Your task to perform on an android device: Search for a tv stand on Ikea Image 0: 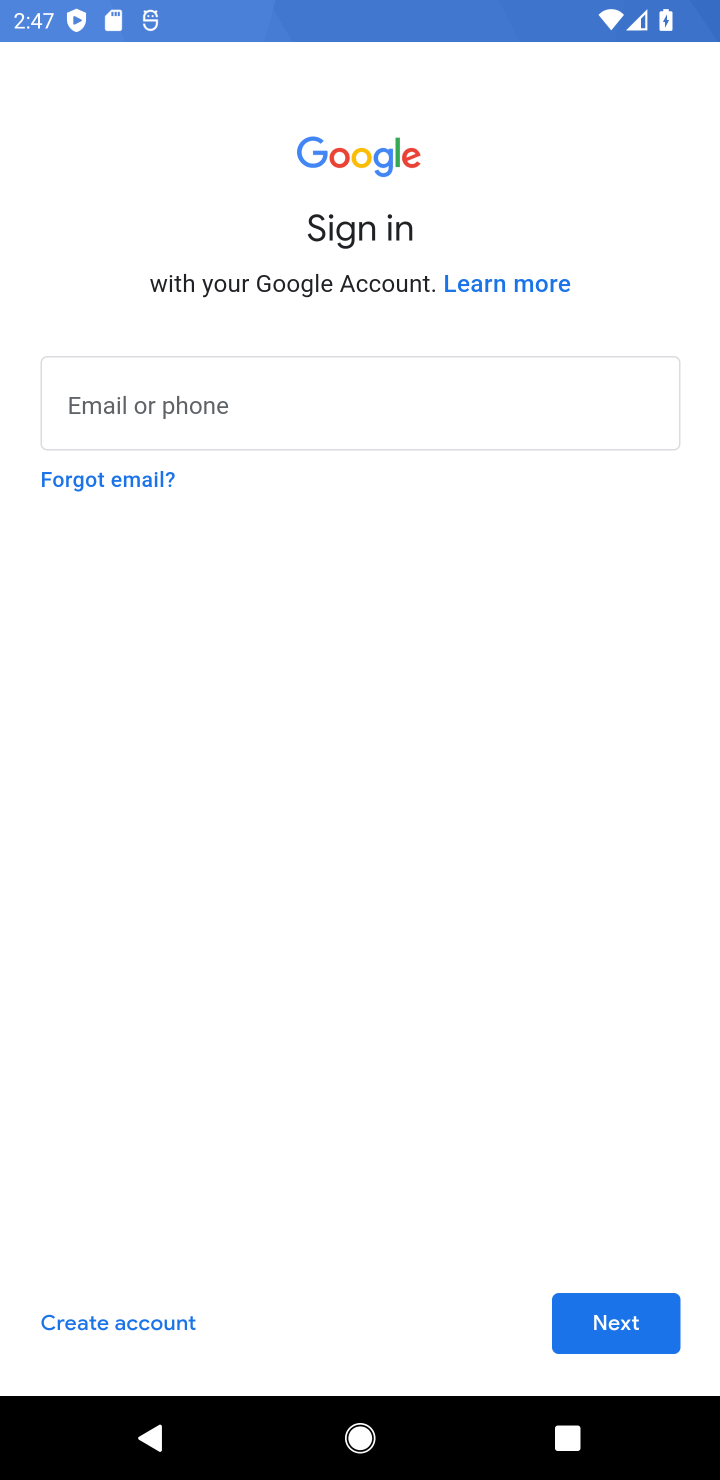
Step 0: press home button
Your task to perform on an android device: Search for a tv stand on Ikea Image 1: 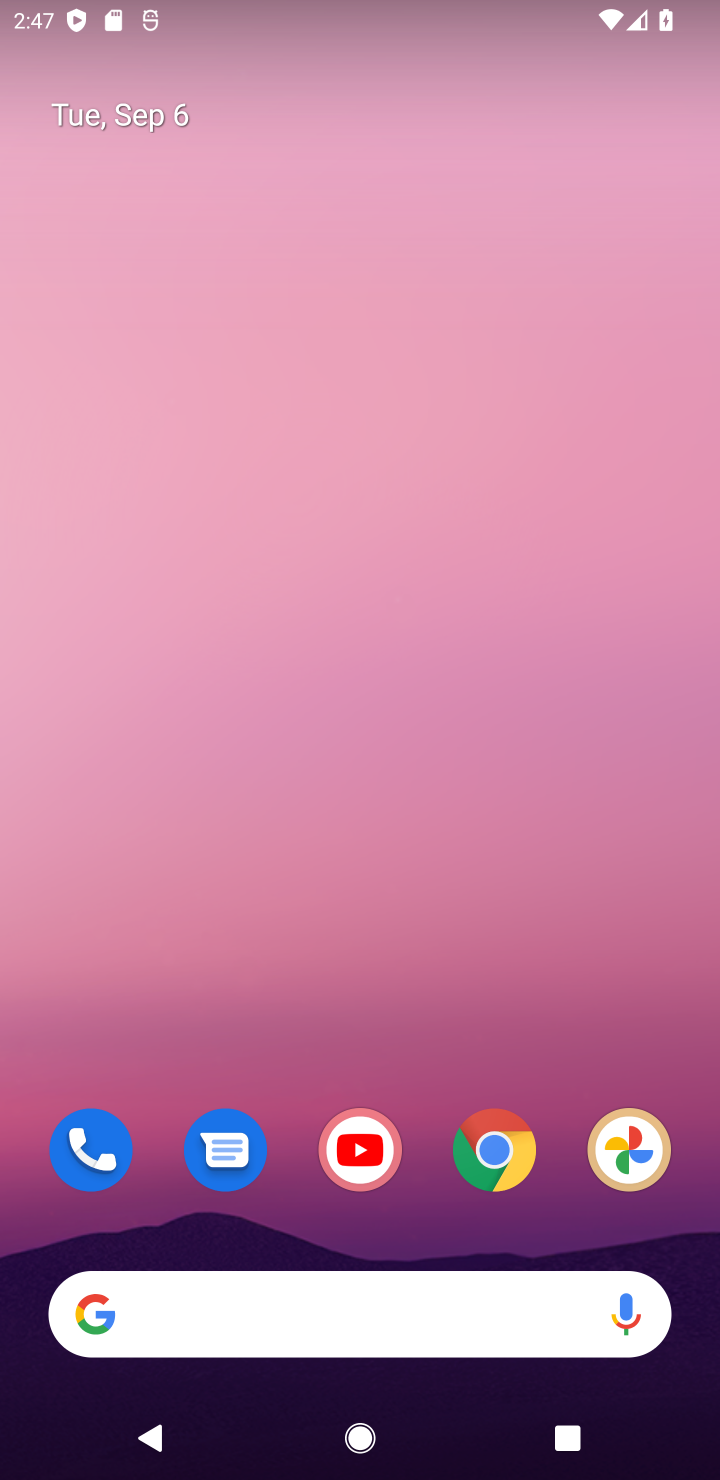
Step 1: click (499, 1158)
Your task to perform on an android device: Search for a tv stand on Ikea Image 2: 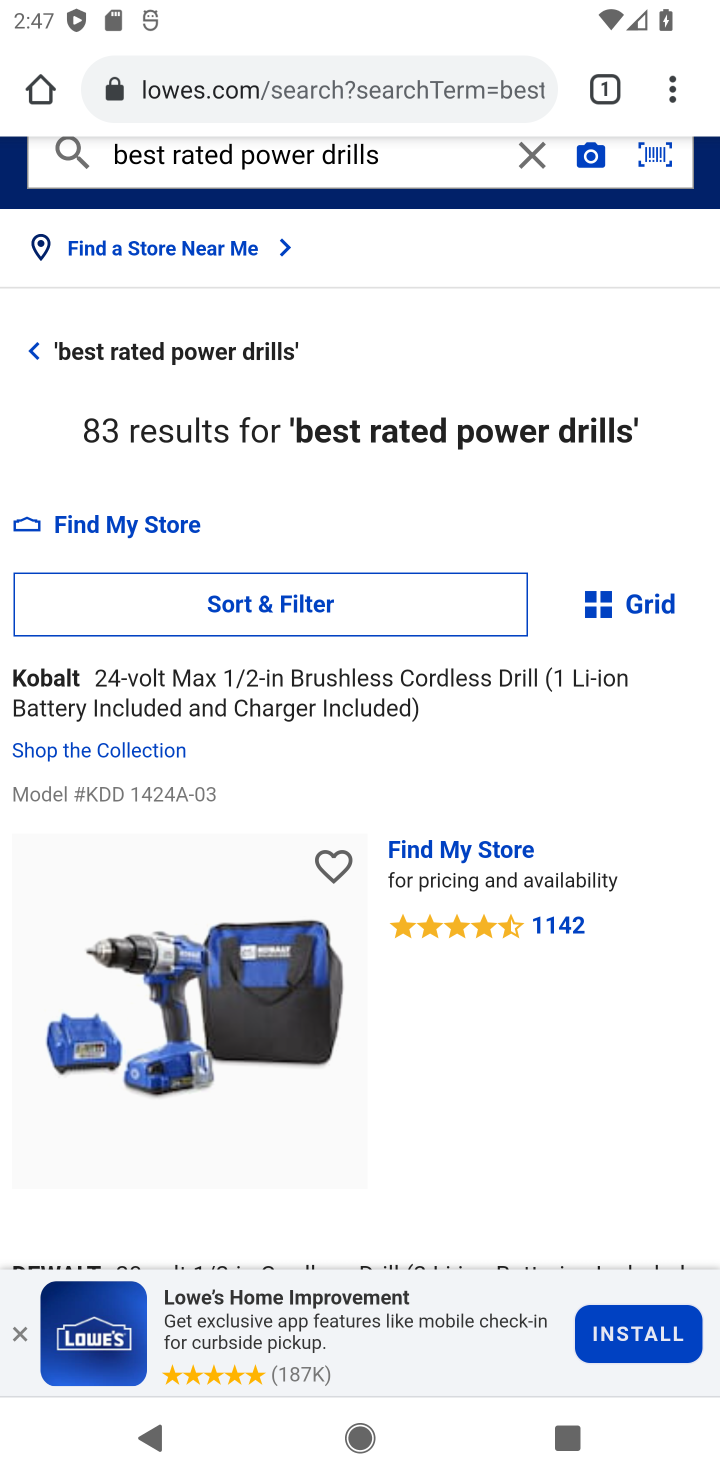
Step 2: click (349, 75)
Your task to perform on an android device: Search for a tv stand on Ikea Image 3: 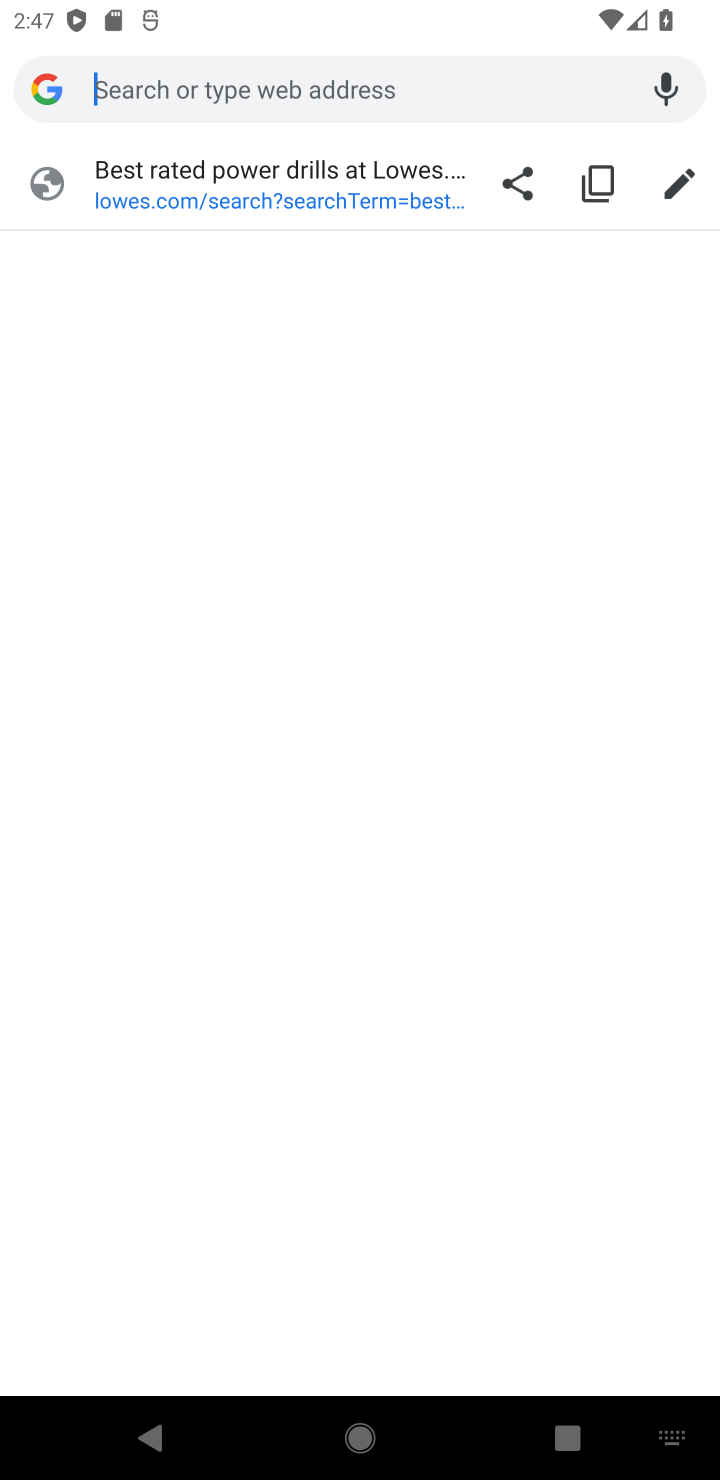
Step 3: type "ikea"
Your task to perform on an android device: Search for a tv stand on Ikea Image 4: 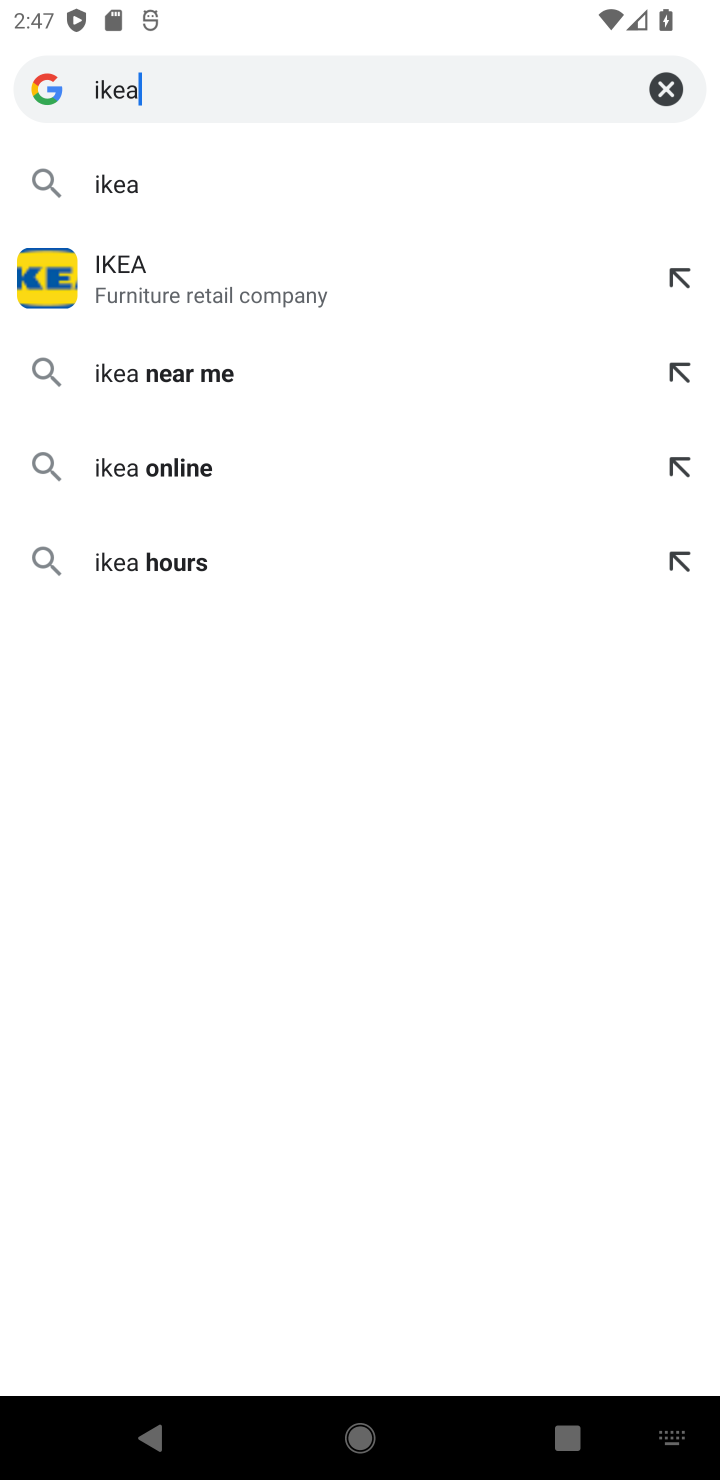
Step 4: click (100, 204)
Your task to perform on an android device: Search for a tv stand on Ikea Image 5: 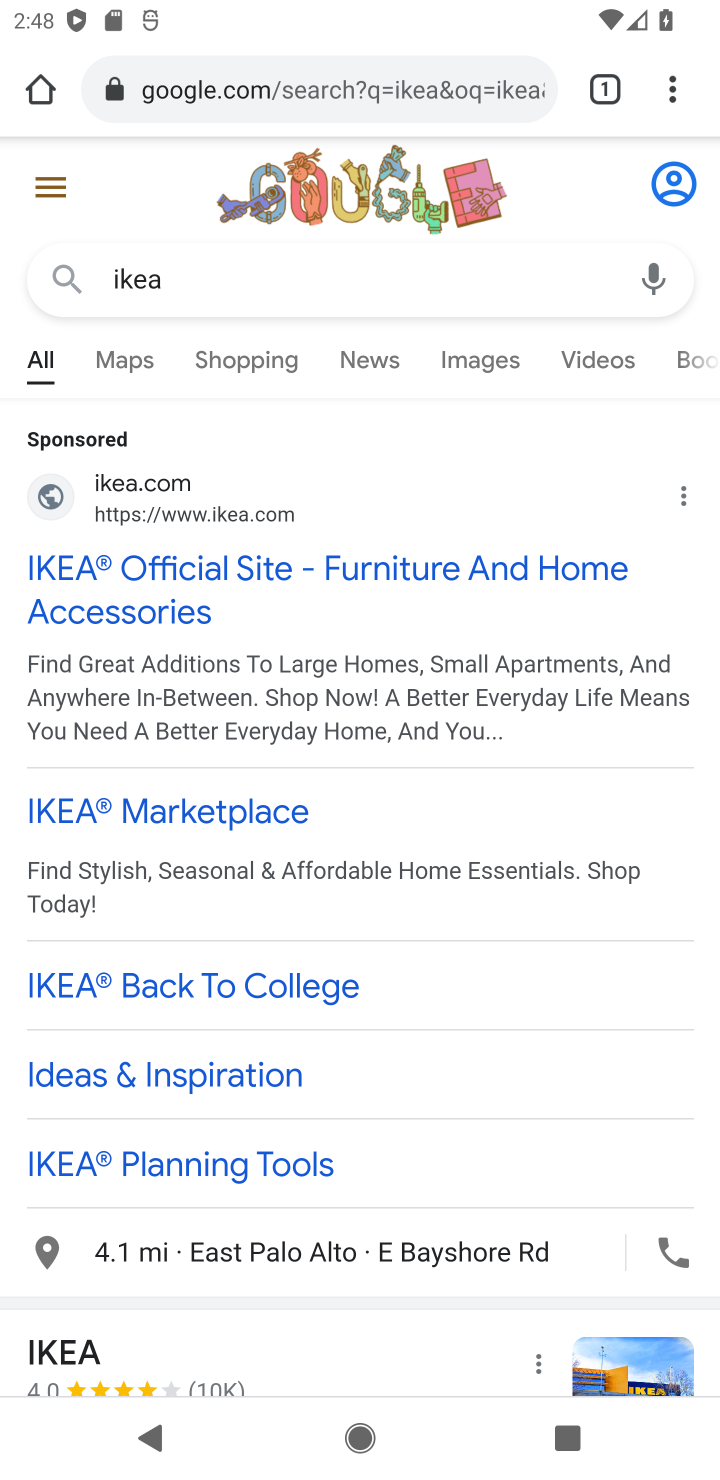
Step 5: click (121, 567)
Your task to perform on an android device: Search for a tv stand on Ikea Image 6: 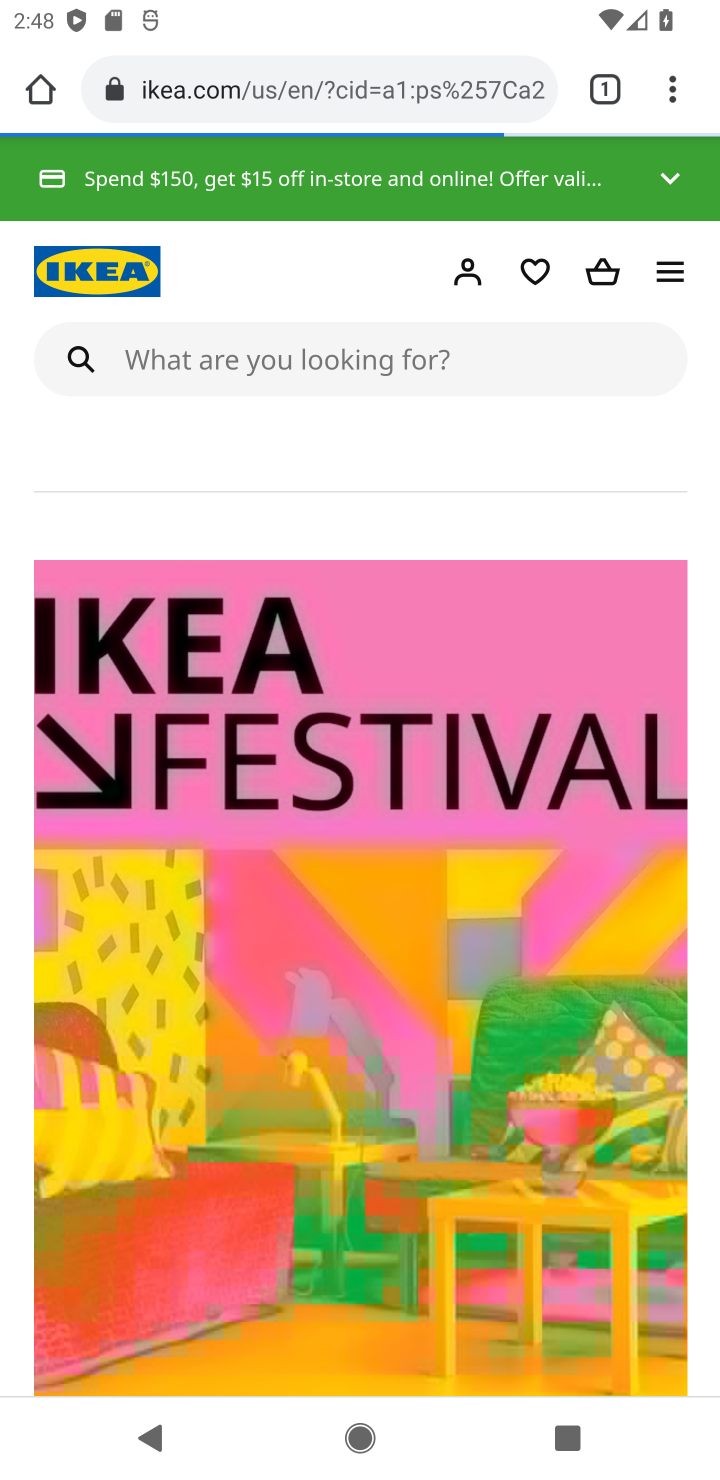
Step 6: click (157, 360)
Your task to perform on an android device: Search for a tv stand on Ikea Image 7: 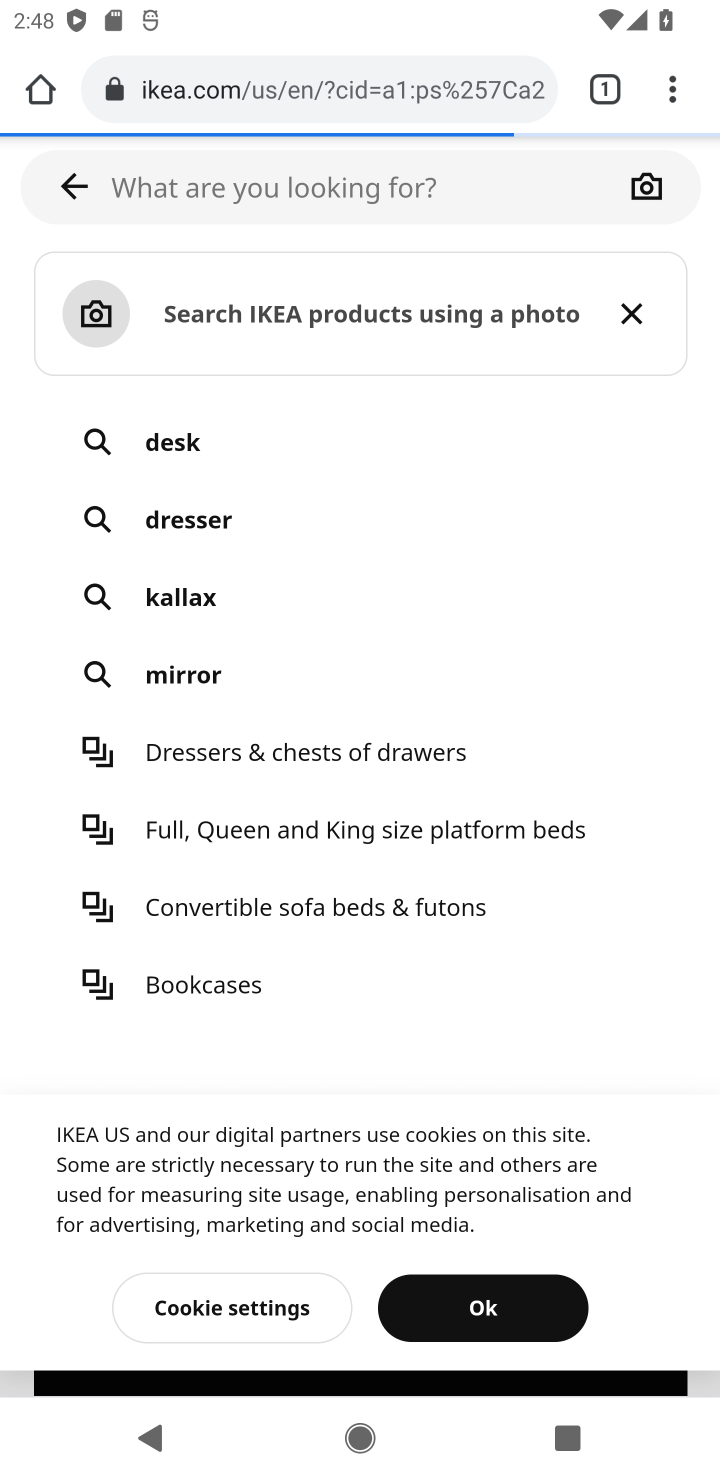
Step 7: type " tv stand"
Your task to perform on an android device: Search for a tv stand on Ikea Image 8: 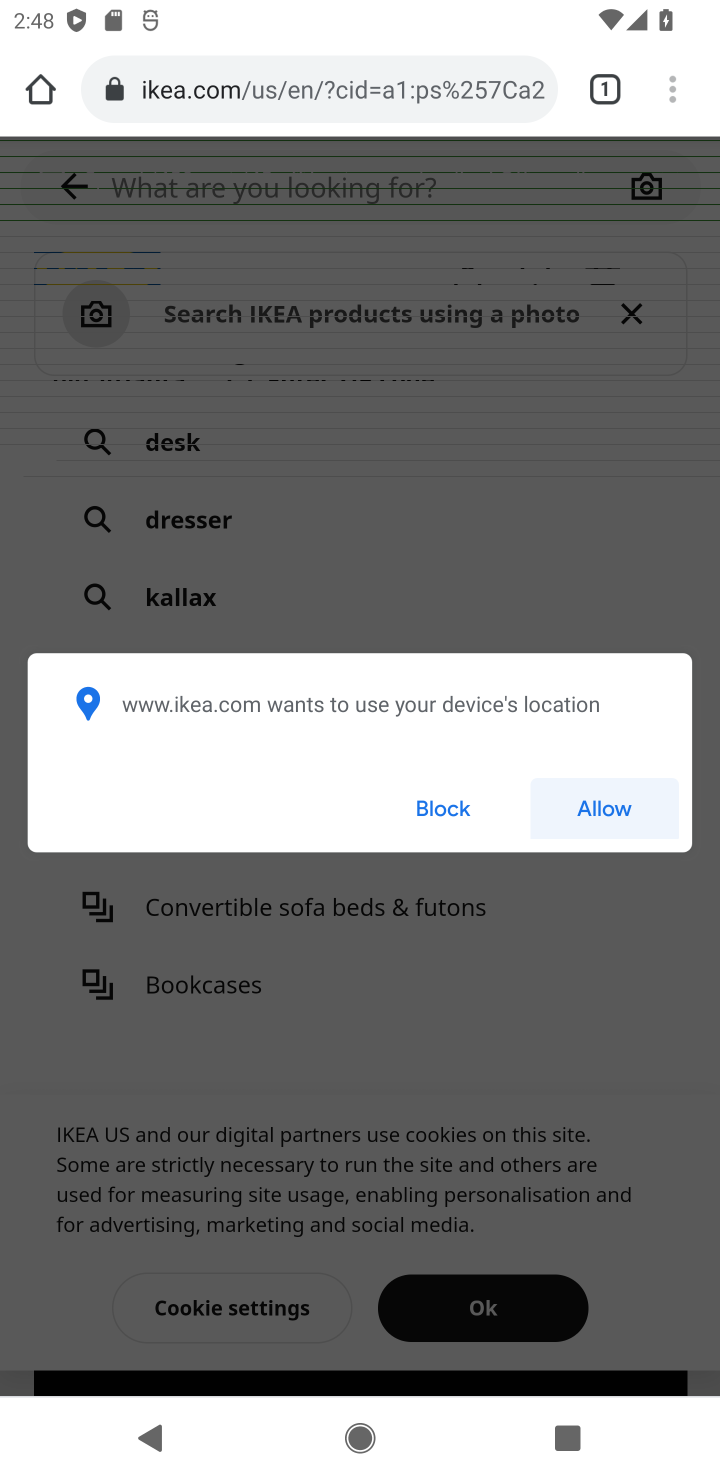
Step 8: click (448, 810)
Your task to perform on an android device: Search for a tv stand on Ikea Image 9: 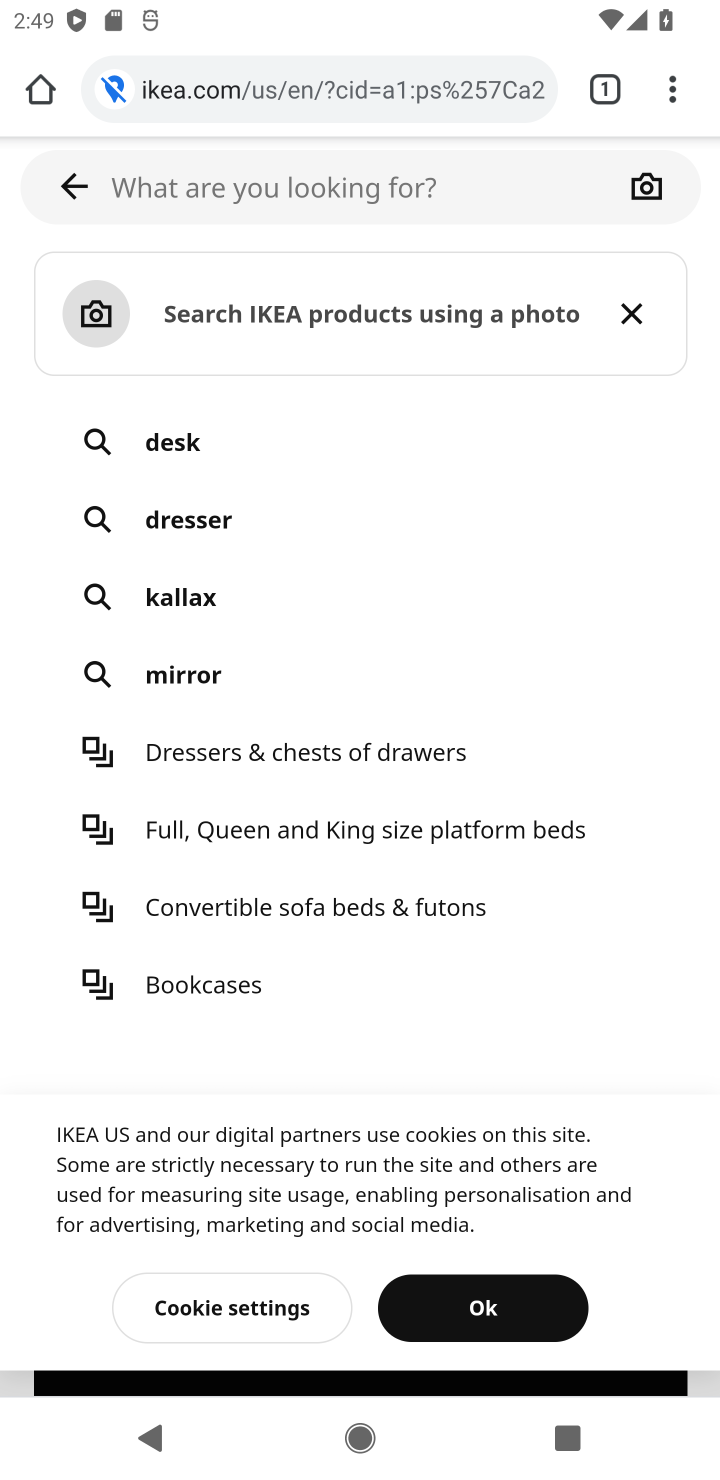
Step 9: click (238, 185)
Your task to perform on an android device: Search for a tv stand on Ikea Image 10: 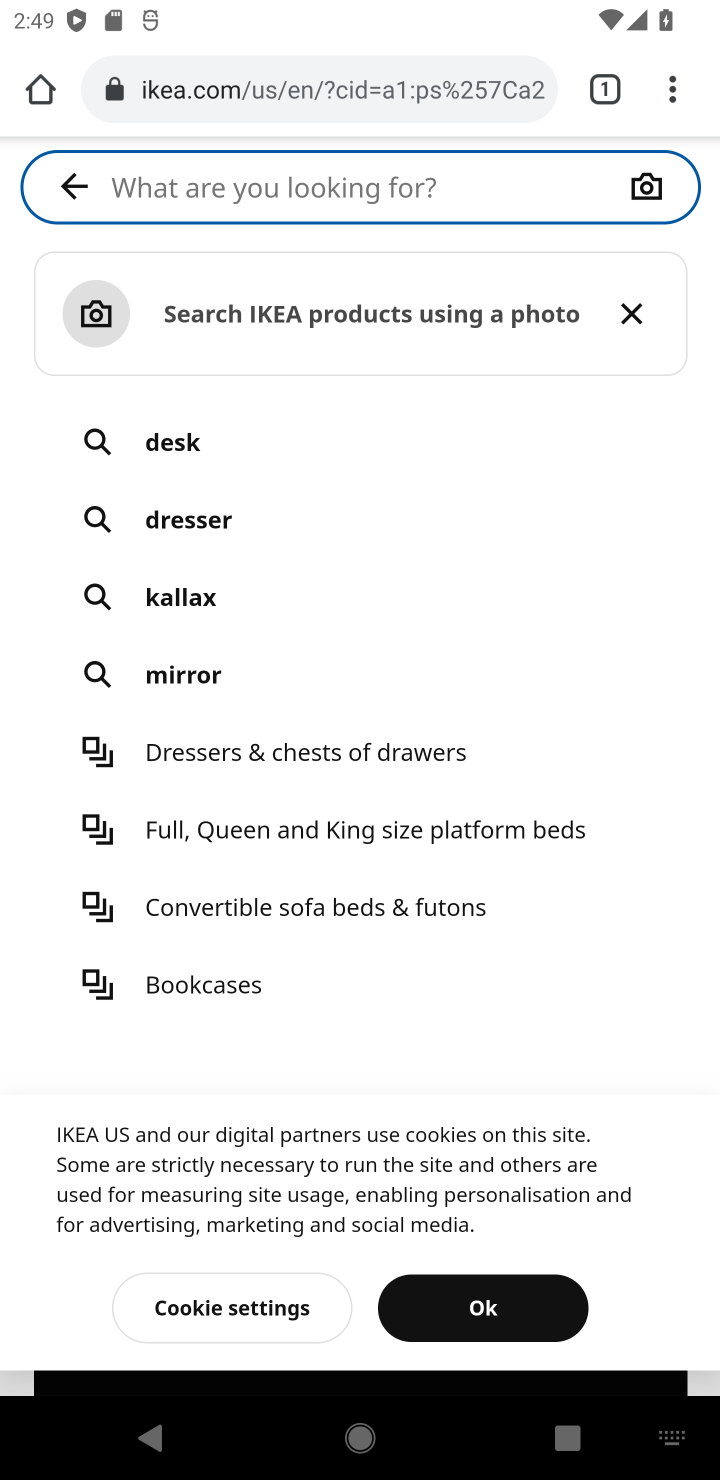
Step 10: type "tv stand"
Your task to perform on an android device: Search for a tv stand on Ikea Image 11: 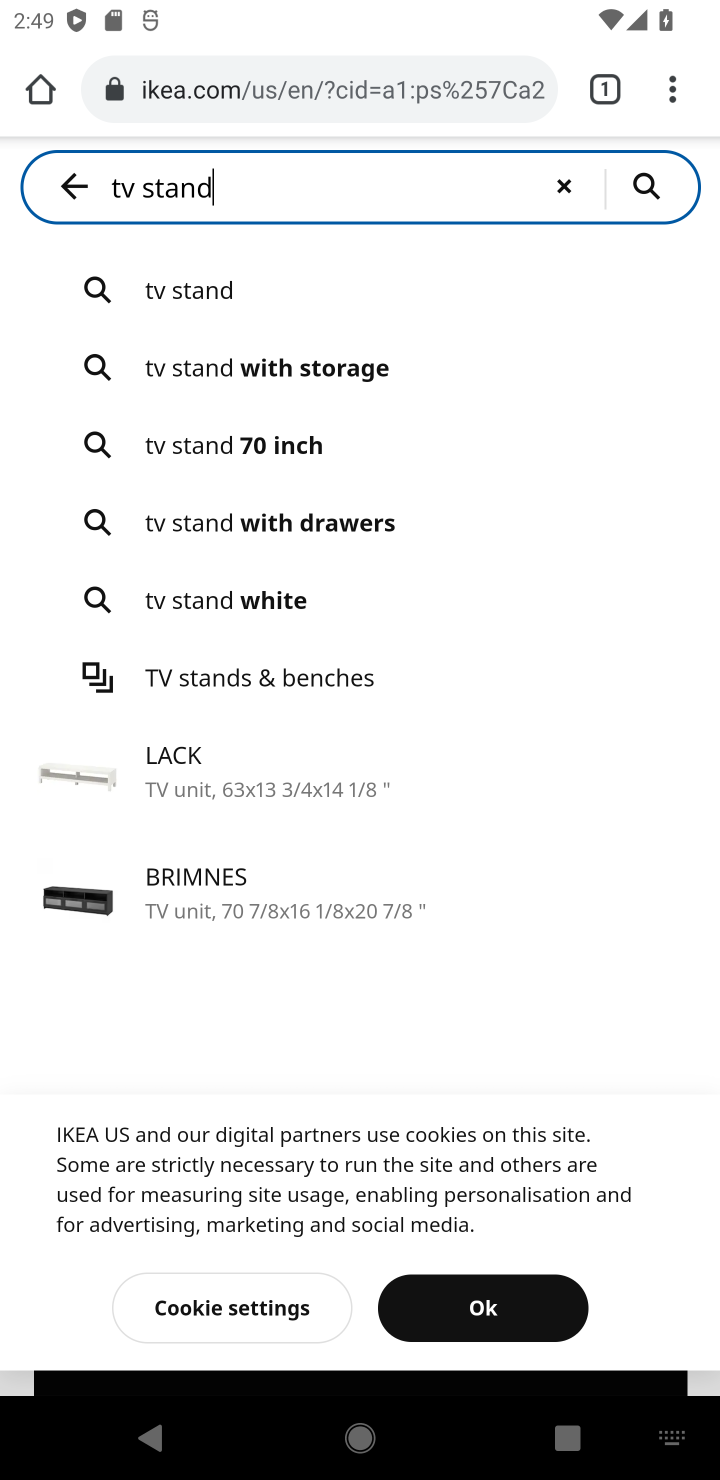
Step 11: click (183, 299)
Your task to perform on an android device: Search for a tv stand on Ikea Image 12: 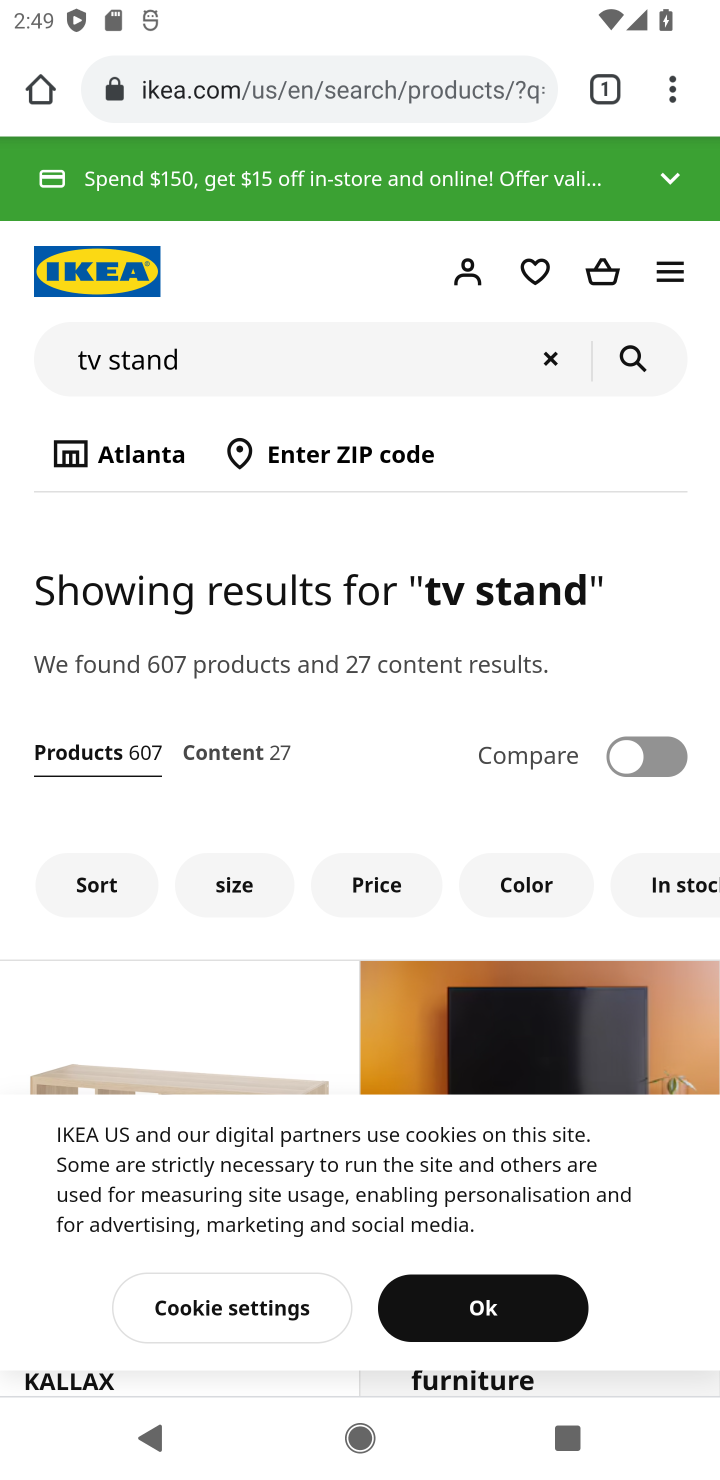
Step 12: task complete